Your task to perform on an android device: Open Google Chrome and click the shortcut for Amazon.com Image 0: 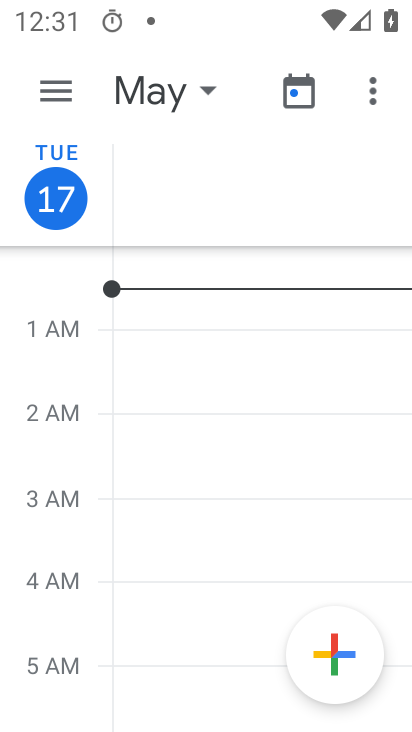
Step 0: press home button
Your task to perform on an android device: Open Google Chrome and click the shortcut for Amazon.com Image 1: 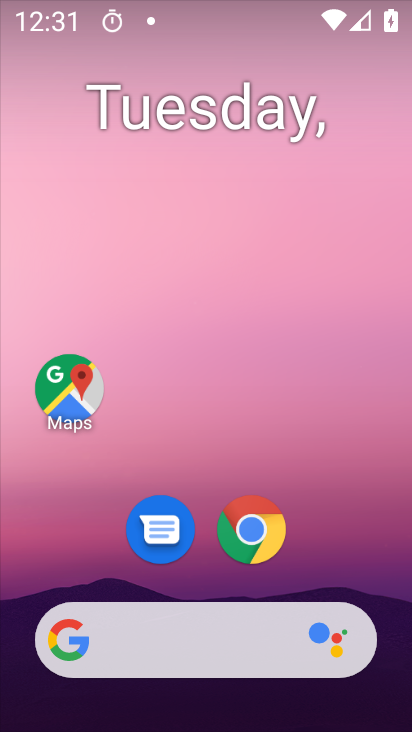
Step 1: click (248, 516)
Your task to perform on an android device: Open Google Chrome and click the shortcut for Amazon.com Image 2: 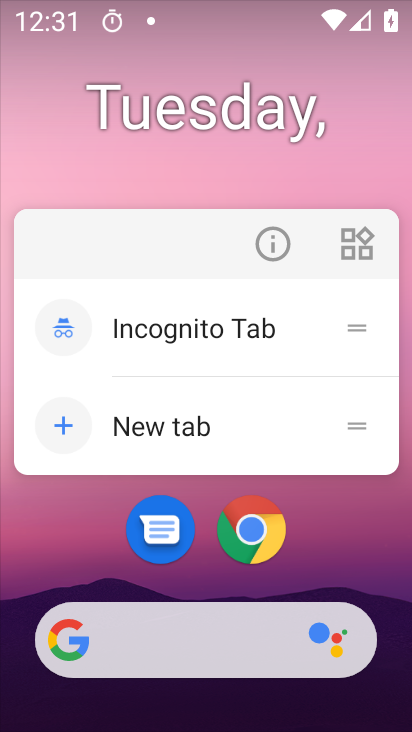
Step 2: click (260, 528)
Your task to perform on an android device: Open Google Chrome and click the shortcut for Amazon.com Image 3: 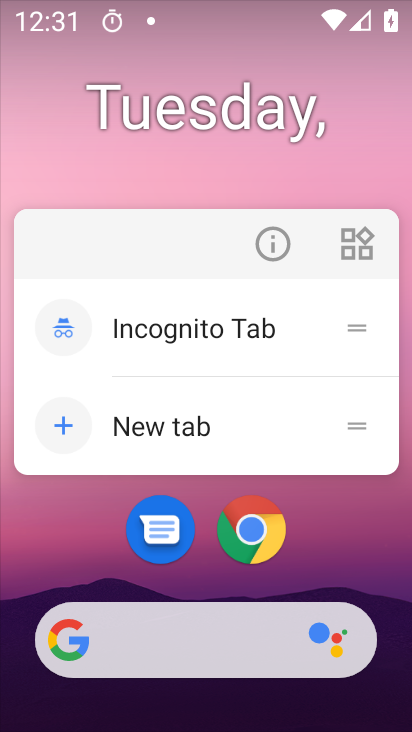
Step 3: click (261, 526)
Your task to perform on an android device: Open Google Chrome and click the shortcut for Amazon.com Image 4: 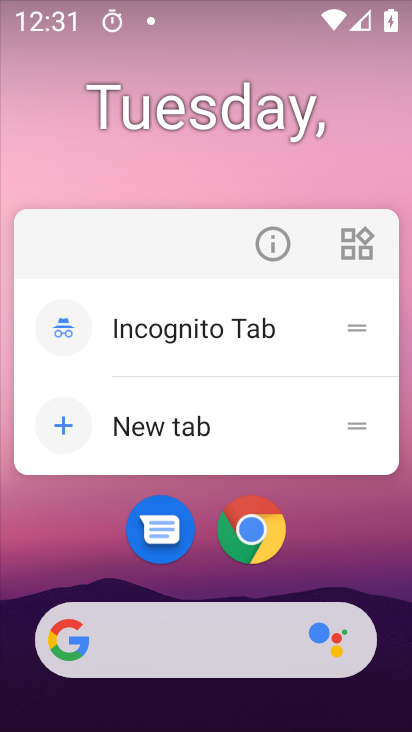
Step 4: click (263, 524)
Your task to perform on an android device: Open Google Chrome and click the shortcut for Amazon.com Image 5: 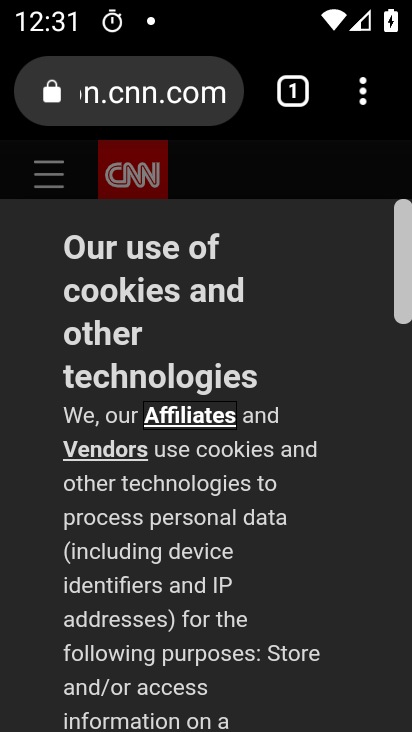
Step 5: click (170, 106)
Your task to perform on an android device: Open Google Chrome and click the shortcut for Amazon.com Image 6: 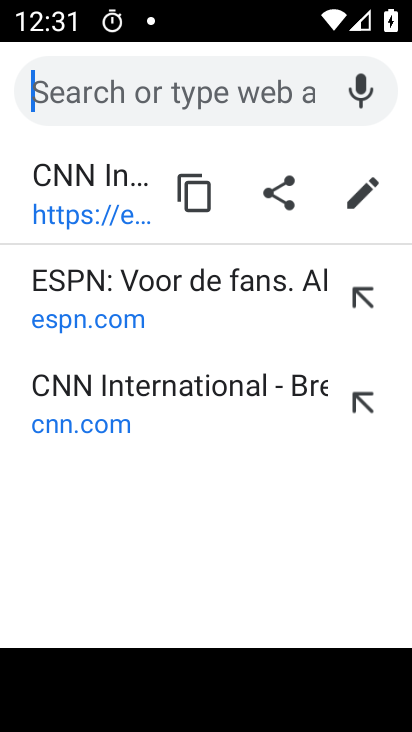
Step 6: type "amazon"
Your task to perform on an android device: Open Google Chrome and click the shortcut for Amazon.com Image 7: 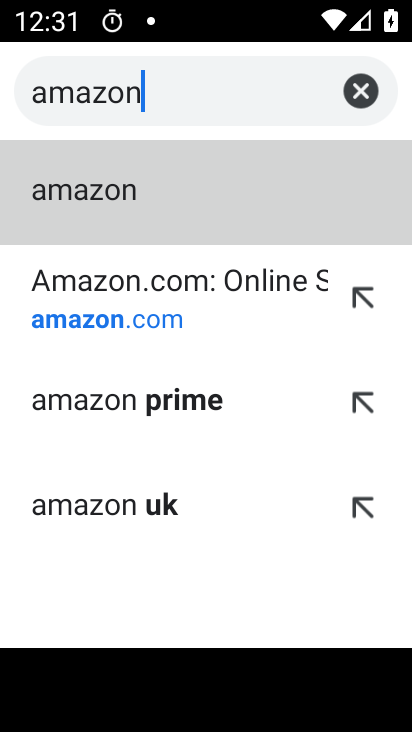
Step 7: click (111, 306)
Your task to perform on an android device: Open Google Chrome and click the shortcut for Amazon.com Image 8: 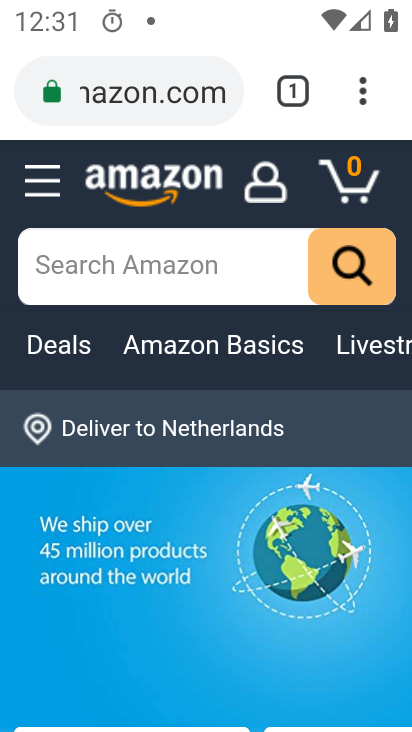
Step 8: drag from (366, 90) to (204, 388)
Your task to perform on an android device: Open Google Chrome and click the shortcut for Amazon.com Image 9: 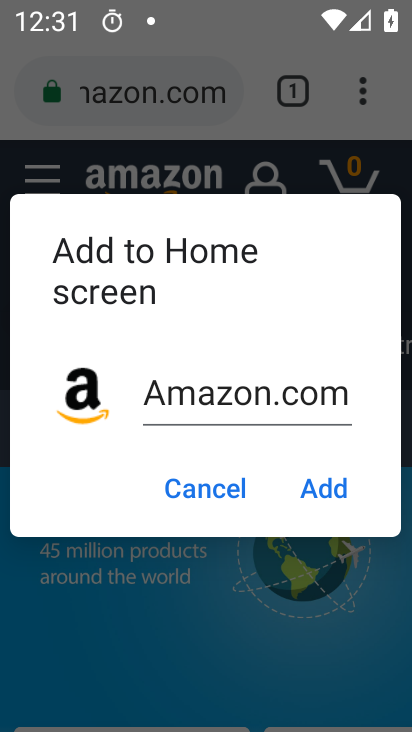
Step 9: click (325, 486)
Your task to perform on an android device: Open Google Chrome and click the shortcut for Amazon.com Image 10: 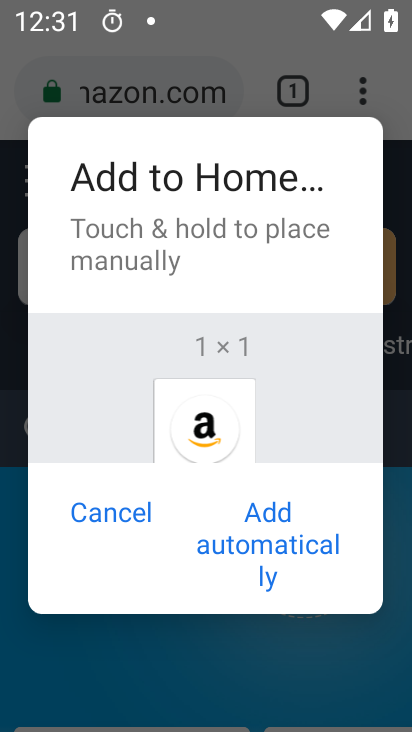
Step 10: click (326, 557)
Your task to perform on an android device: Open Google Chrome and click the shortcut for Amazon.com Image 11: 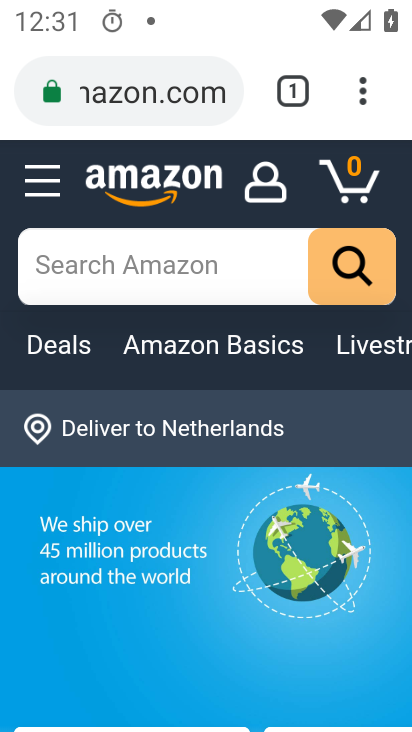
Step 11: task complete